Your task to perform on an android device: turn off airplane mode Image 0: 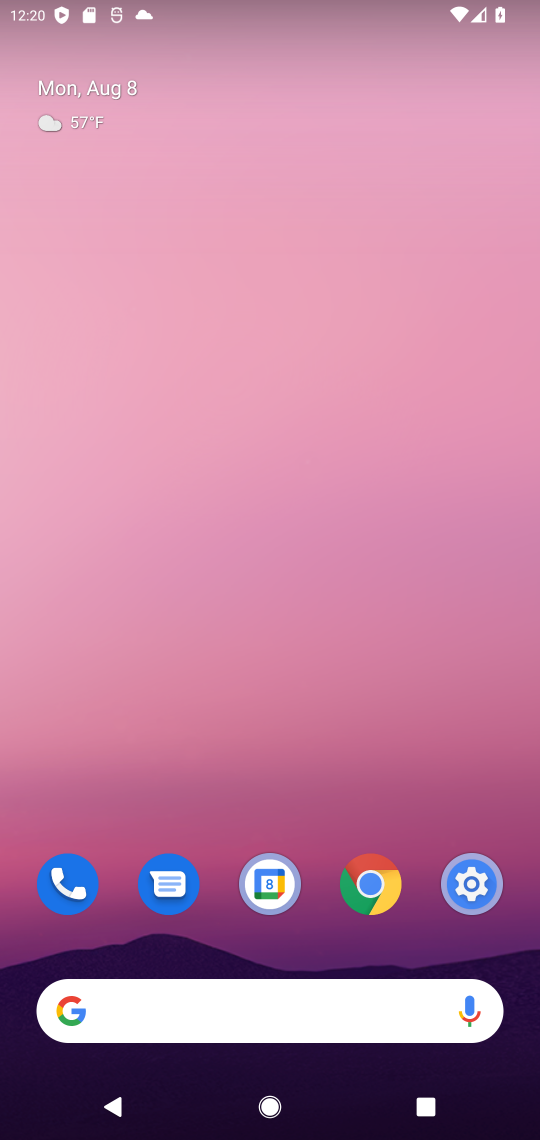
Step 0: click (458, 886)
Your task to perform on an android device: turn off airplane mode Image 1: 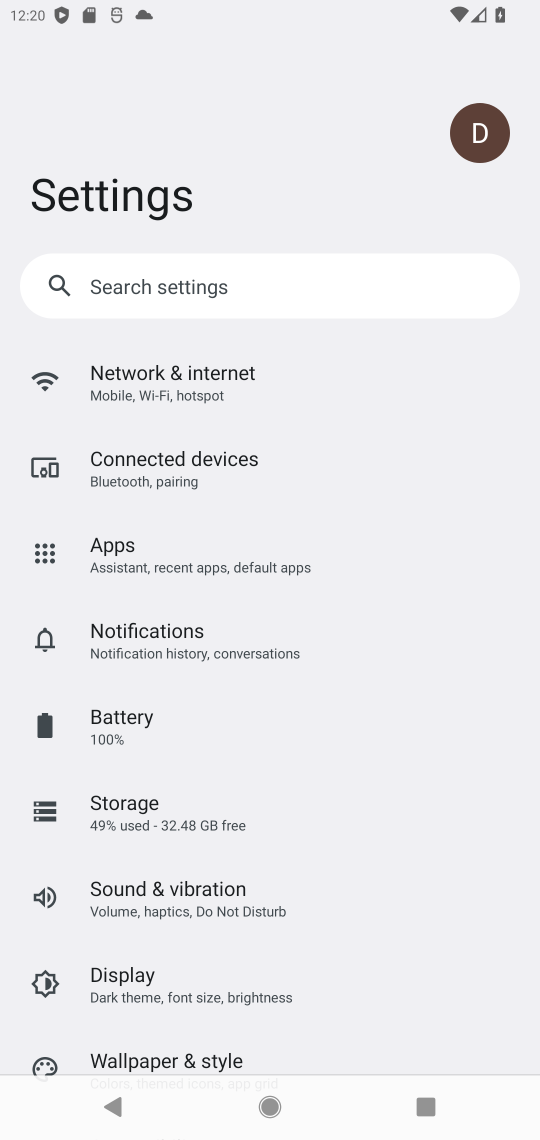
Step 1: click (304, 382)
Your task to perform on an android device: turn off airplane mode Image 2: 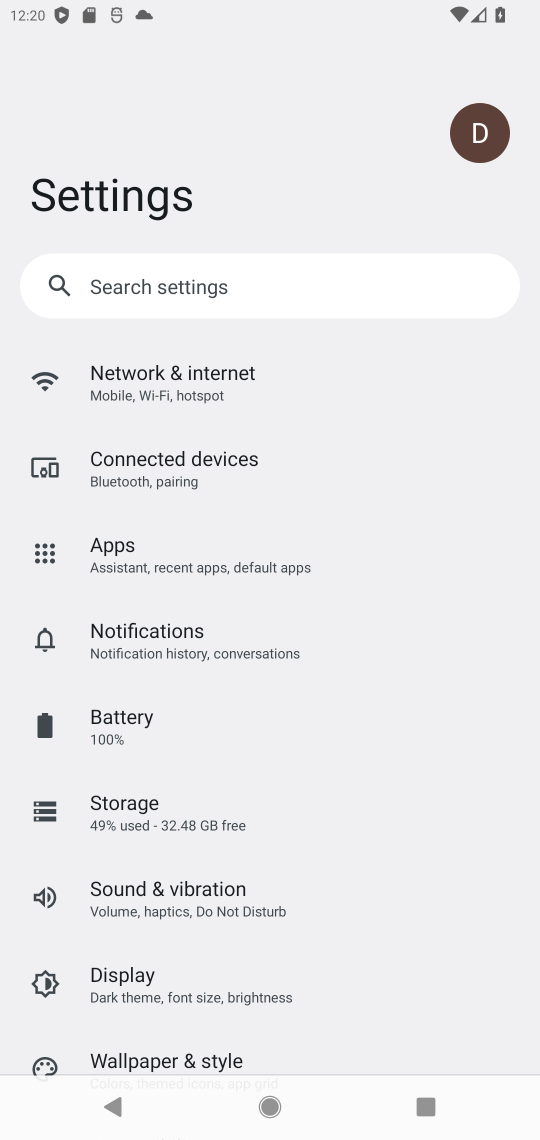
Step 2: click (304, 382)
Your task to perform on an android device: turn off airplane mode Image 3: 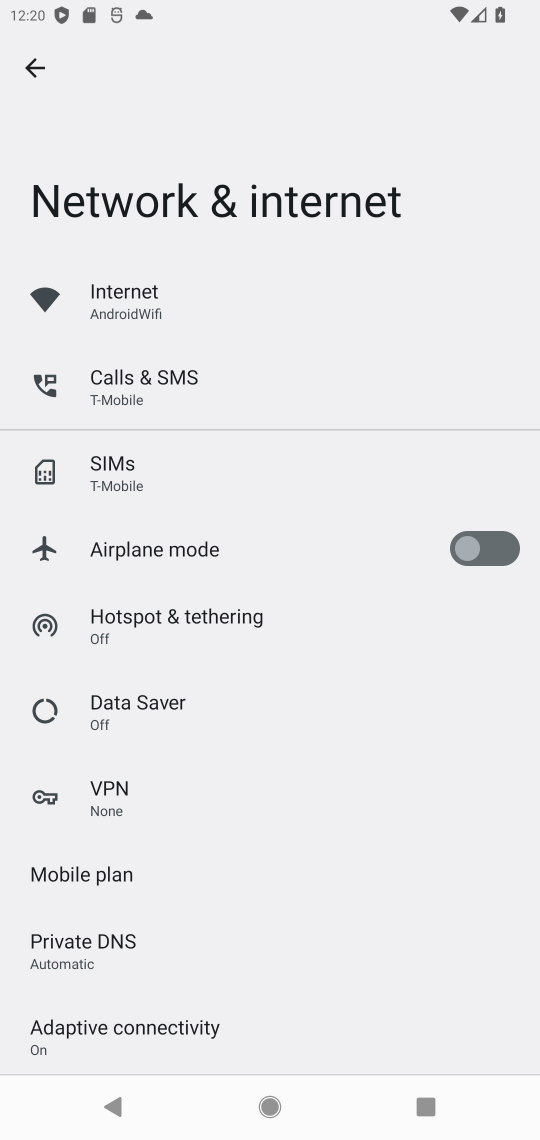
Step 3: task complete